Your task to perform on an android device: turn off data saver in the chrome app Image 0: 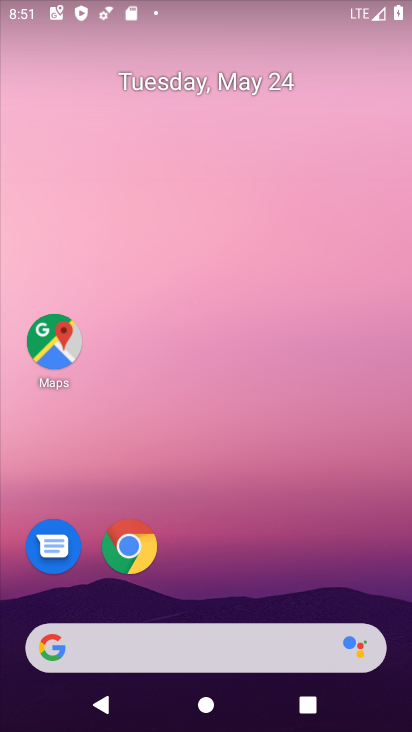
Step 0: click (139, 544)
Your task to perform on an android device: turn off data saver in the chrome app Image 1: 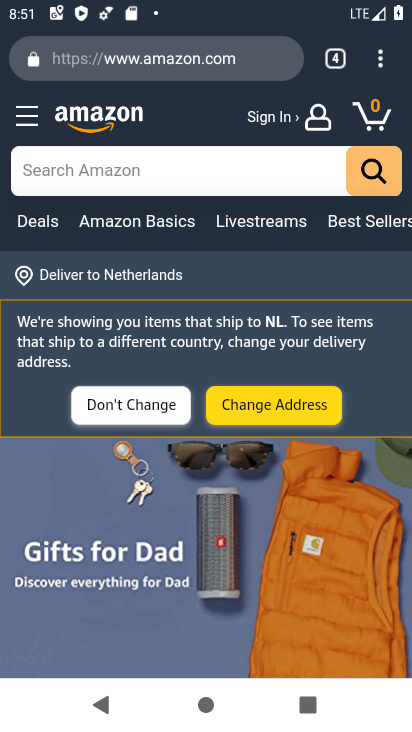
Step 1: click (381, 62)
Your task to perform on an android device: turn off data saver in the chrome app Image 2: 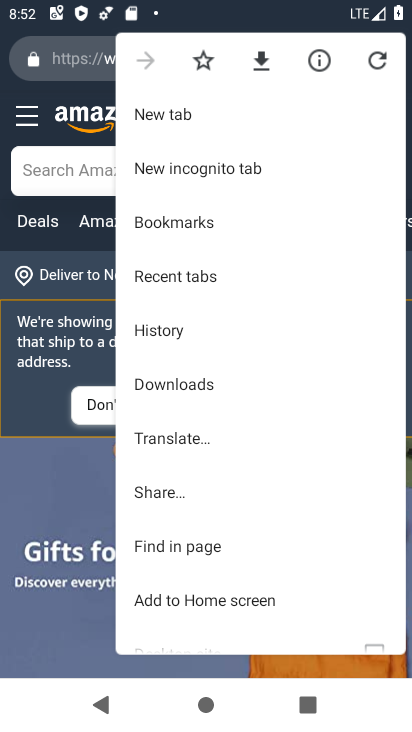
Step 2: drag from (240, 417) to (237, 142)
Your task to perform on an android device: turn off data saver in the chrome app Image 3: 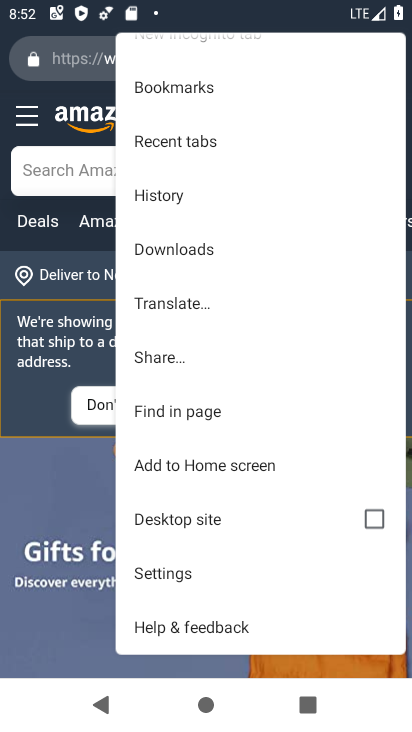
Step 3: click (161, 563)
Your task to perform on an android device: turn off data saver in the chrome app Image 4: 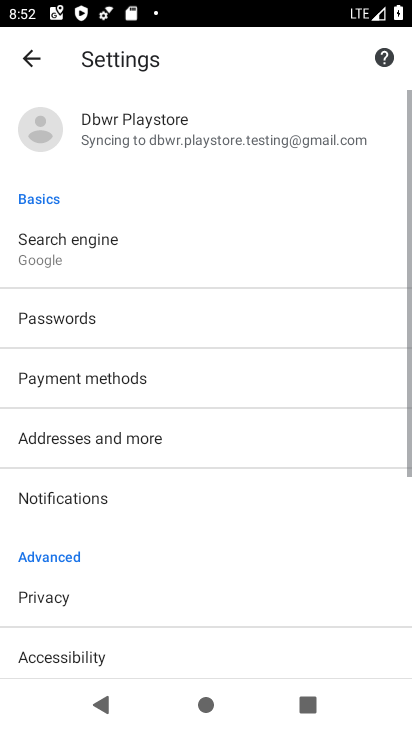
Step 4: drag from (247, 559) to (272, 162)
Your task to perform on an android device: turn off data saver in the chrome app Image 5: 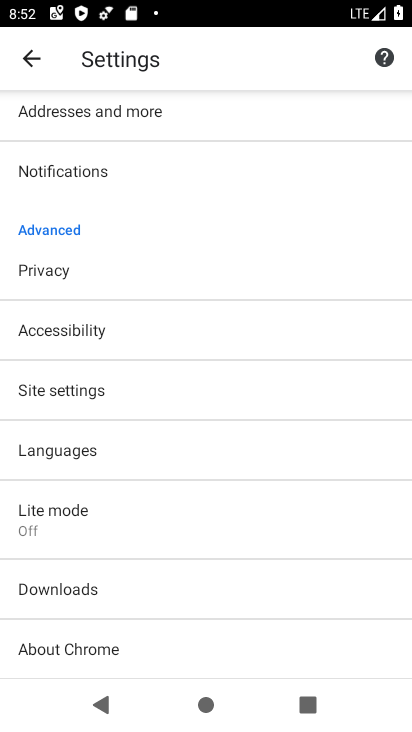
Step 5: click (181, 522)
Your task to perform on an android device: turn off data saver in the chrome app Image 6: 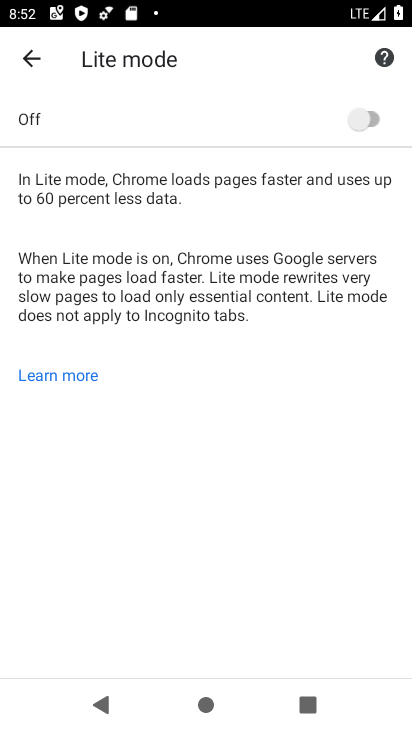
Step 6: task complete